Your task to perform on an android device: change the clock display to show seconds Image 0: 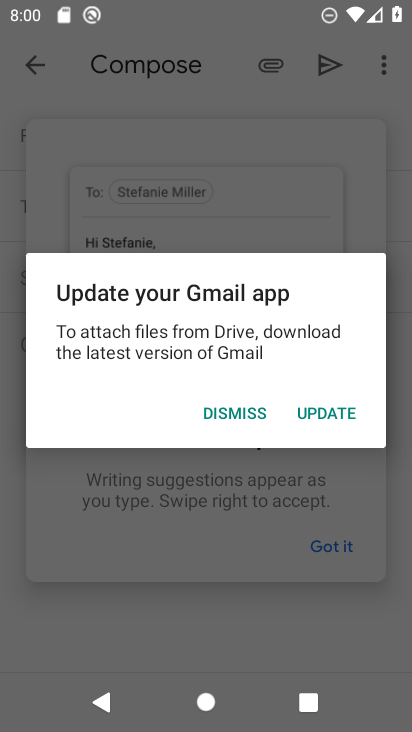
Step 0: press home button
Your task to perform on an android device: change the clock display to show seconds Image 1: 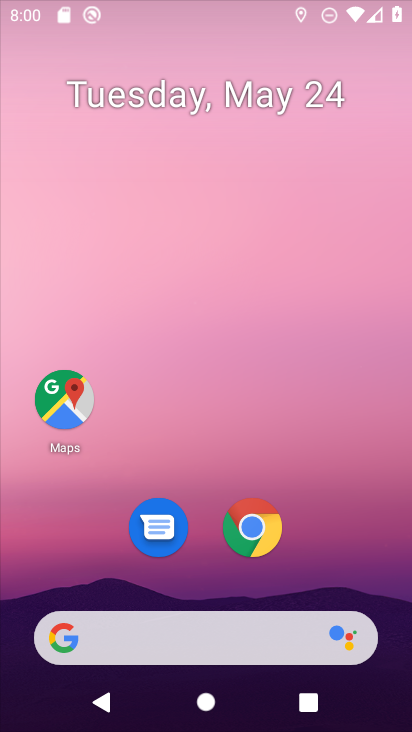
Step 1: drag from (379, 585) to (238, 113)
Your task to perform on an android device: change the clock display to show seconds Image 2: 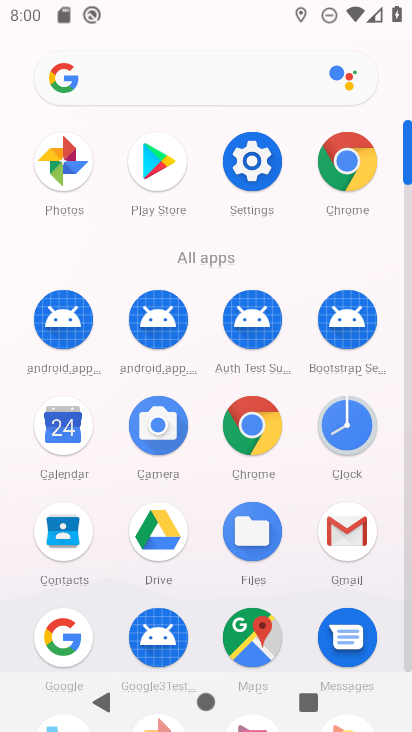
Step 2: click (332, 444)
Your task to perform on an android device: change the clock display to show seconds Image 3: 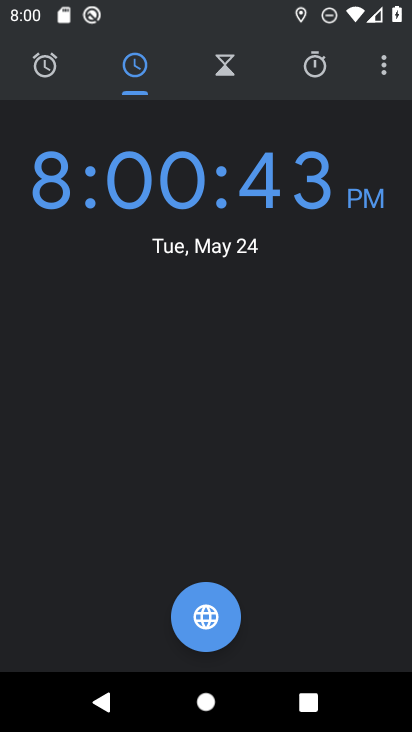
Step 3: click (389, 70)
Your task to perform on an android device: change the clock display to show seconds Image 4: 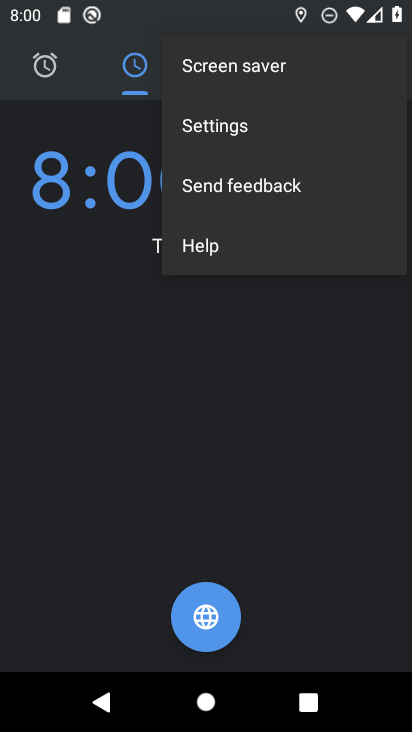
Step 4: click (269, 135)
Your task to perform on an android device: change the clock display to show seconds Image 5: 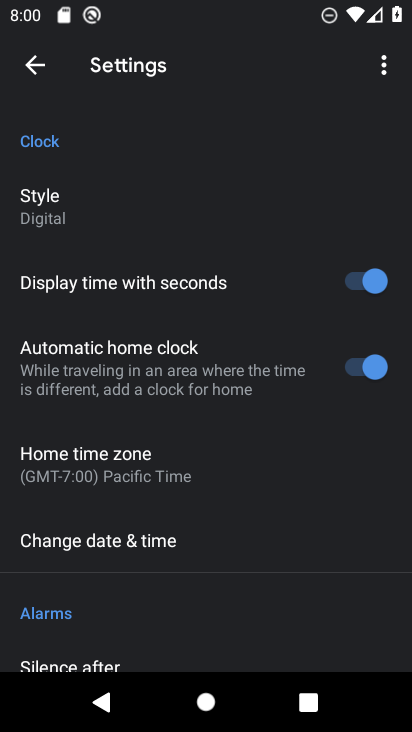
Step 5: task complete